Your task to perform on an android device: What's the weather going to be tomorrow? Image 0: 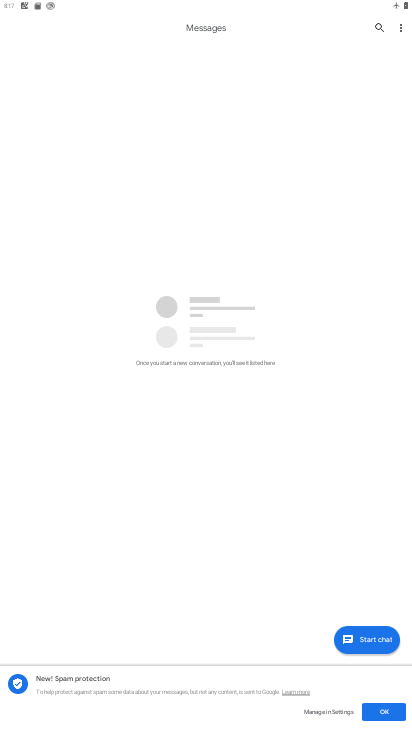
Step 0: press home button
Your task to perform on an android device: What's the weather going to be tomorrow? Image 1: 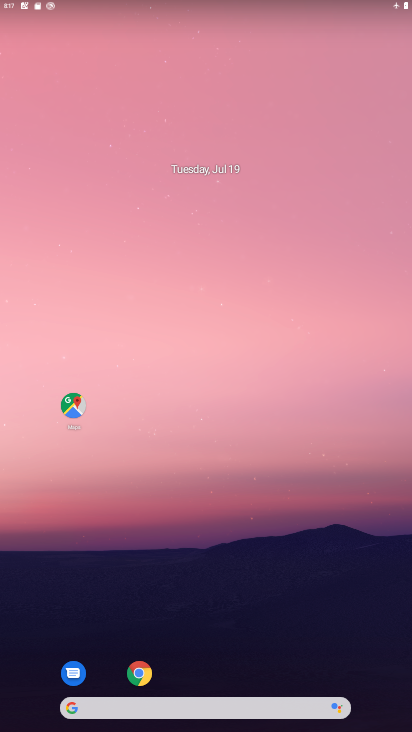
Step 1: drag from (225, 581) to (167, 140)
Your task to perform on an android device: What's the weather going to be tomorrow? Image 2: 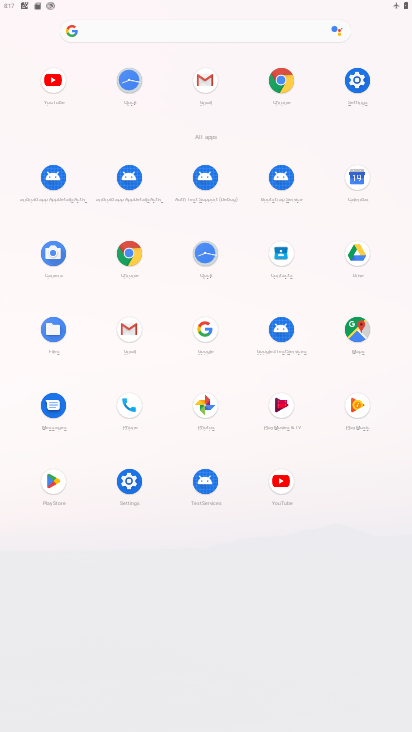
Step 2: click (132, 255)
Your task to perform on an android device: What's the weather going to be tomorrow? Image 3: 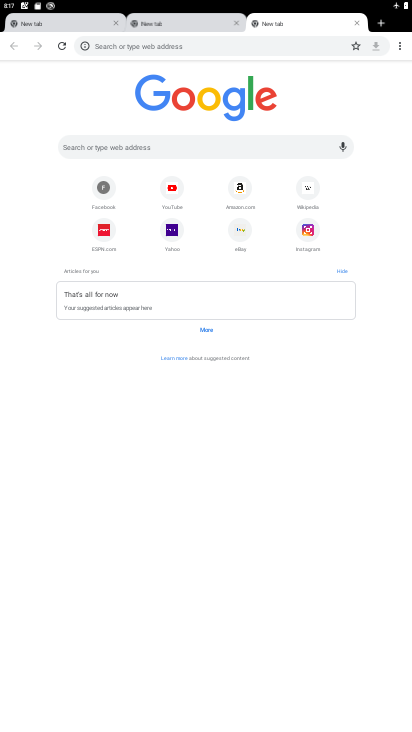
Step 3: click (156, 42)
Your task to perform on an android device: What's the weather going to be tomorrow? Image 4: 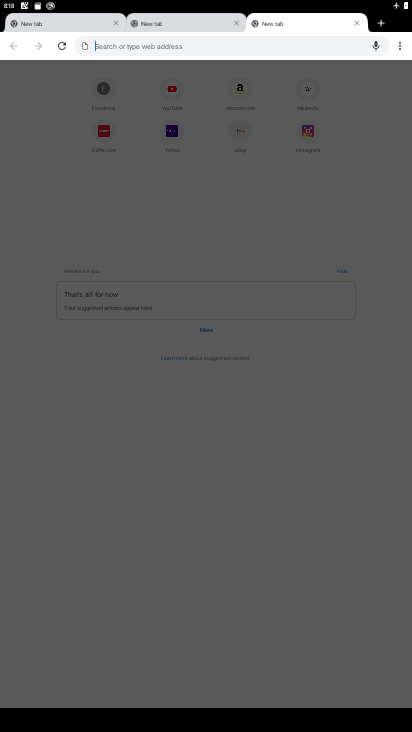
Step 4: type "weather going to be tomorrow"
Your task to perform on an android device: What's the weather going to be tomorrow? Image 5: 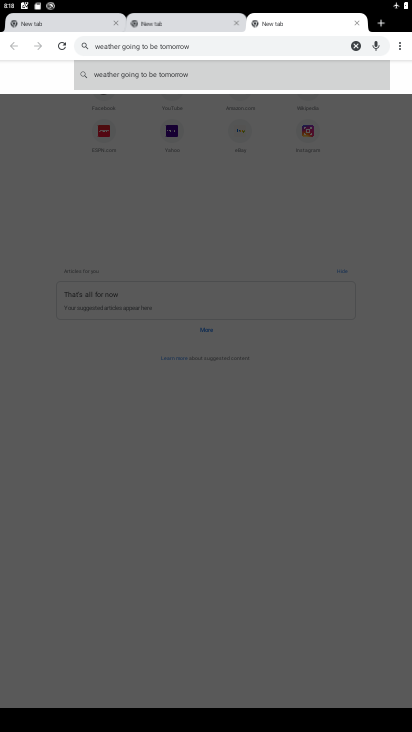
Step 5: click (210, 75)
Your task to perform on an android device: What's the weather going to be tomorrow? Image 6: 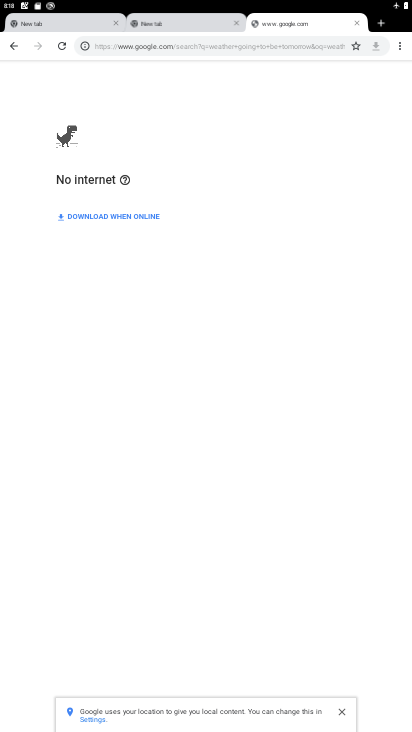
Step 6: task complete